Your task to perform on an android device: see sites visited before in the chrome app Image 0: 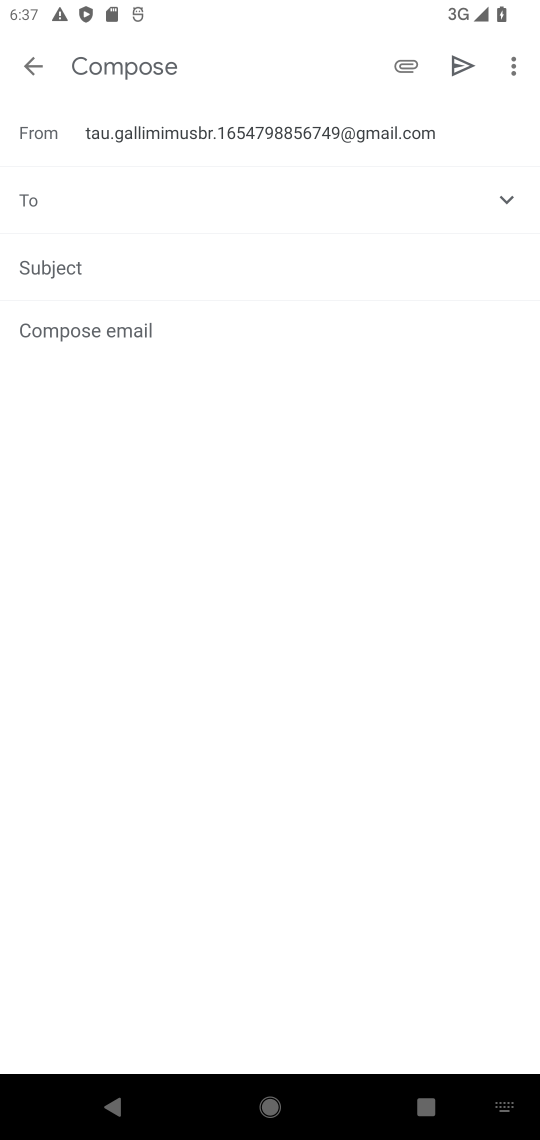
Step 0: press home button
Your task to perform on an android device: see sites visited before in the chrome app Image 1: 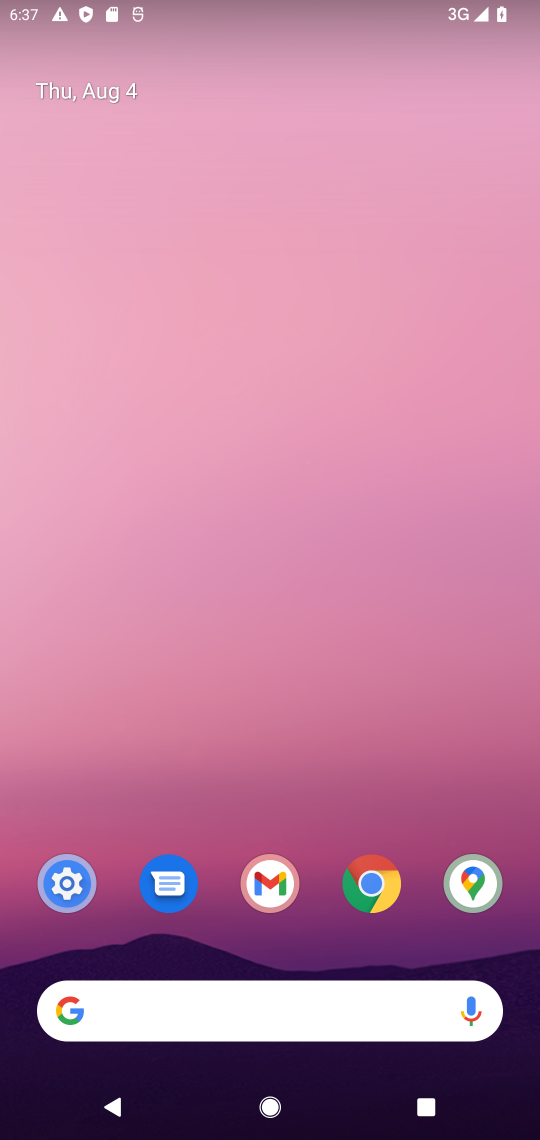
Step 1: click (391, 903)
Your task to perform on an android device: see sites visited before in the chrome app Image 2: 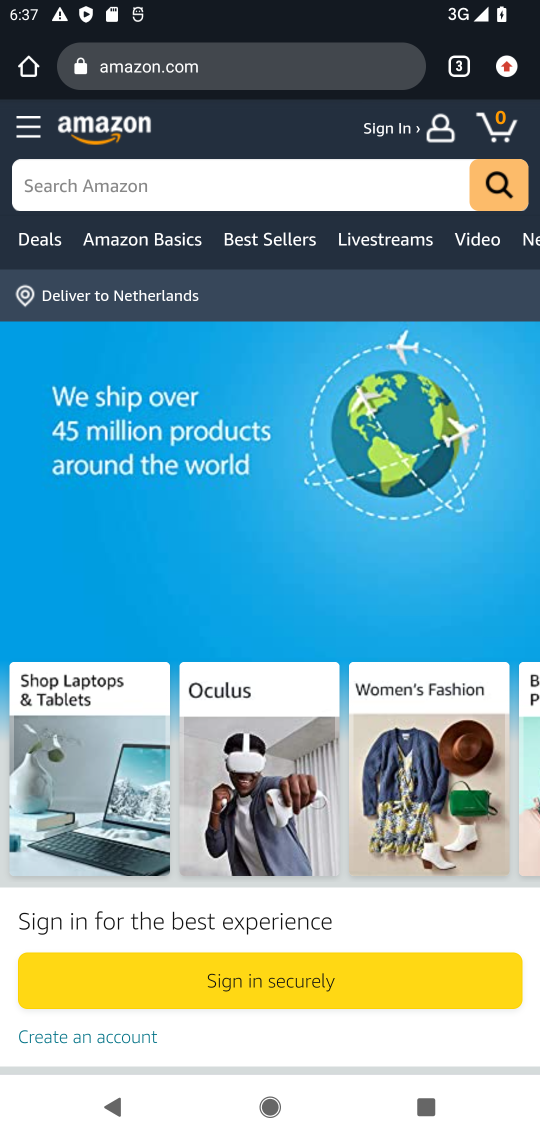
Step 2: click (500, 65)
Your task to perform on an android device: see sites visited before in the chrome app Image 3: 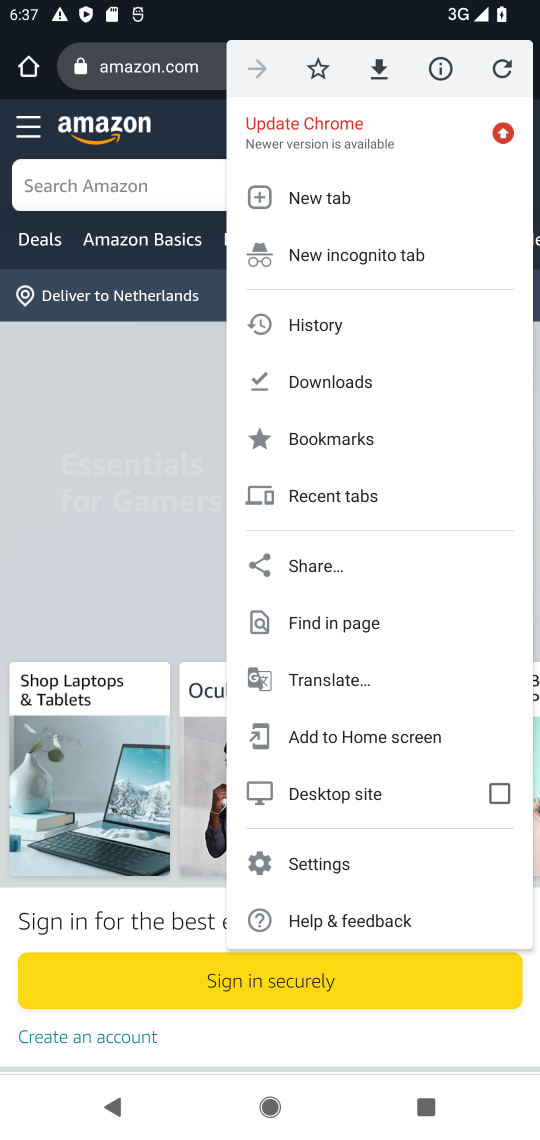
Step 3: click (334, 335)
Your task to perform on an android device: see sites visited before in the chrome app Image 4: 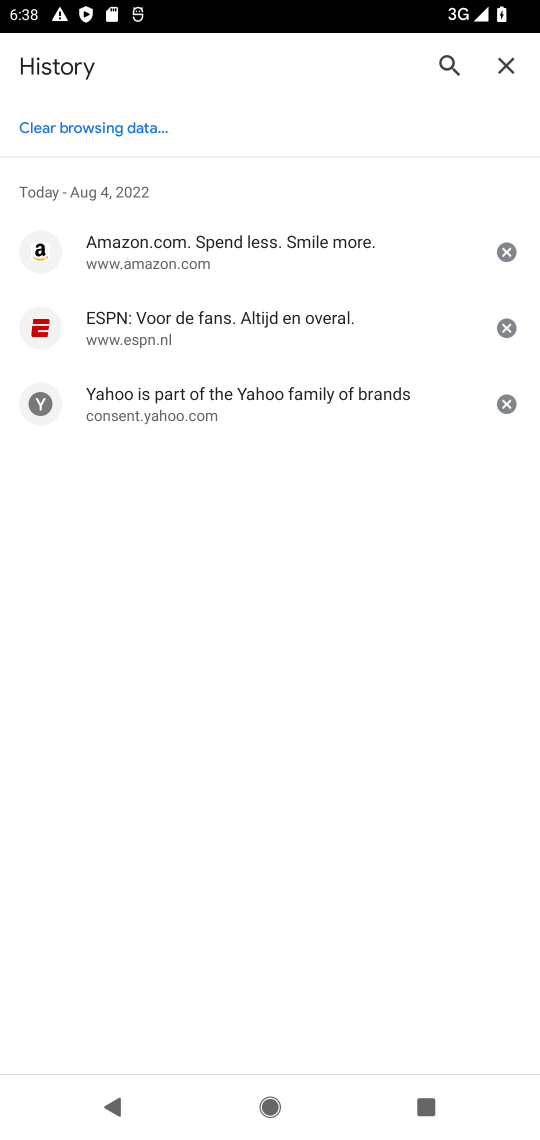
Step 4: task complete